Your task to perform on an android device: Do I have any events this weekend? Image 0: 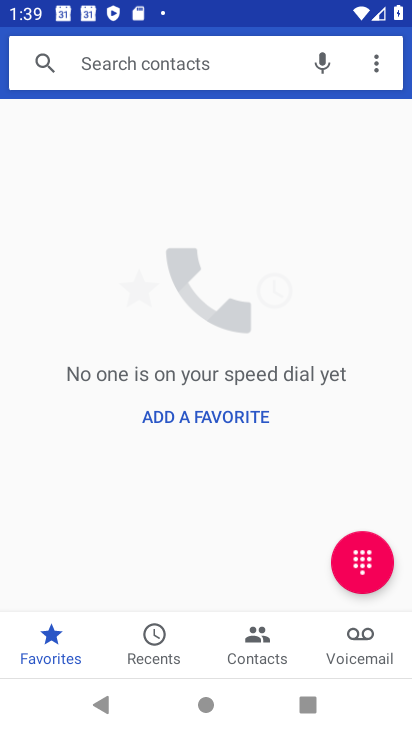
Step 0: press home button
Your task to perform on an android device: Do I have any events this weekend? Image 1: 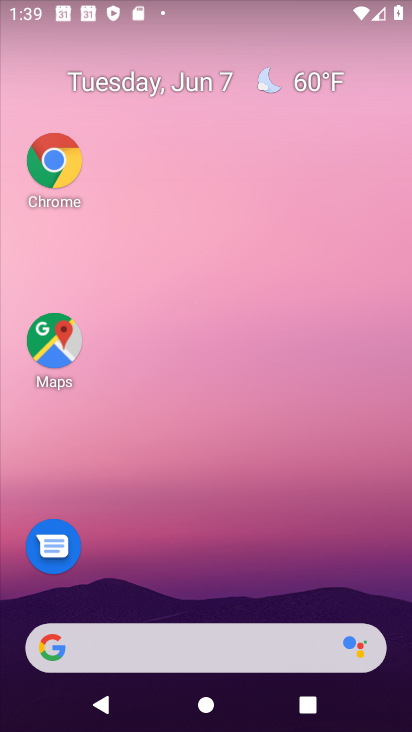
Step 1: drag from (186, 543) to (190, 153)
Your task to perform on an android device: Do I have any events this weekend? Image 2: 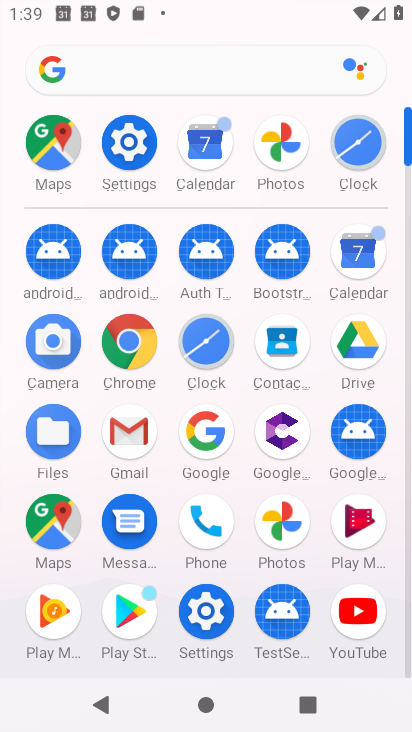
Step 2: click (350, 253)
Your task to perform on an android device: Do I have any events this weekend? Image 3: 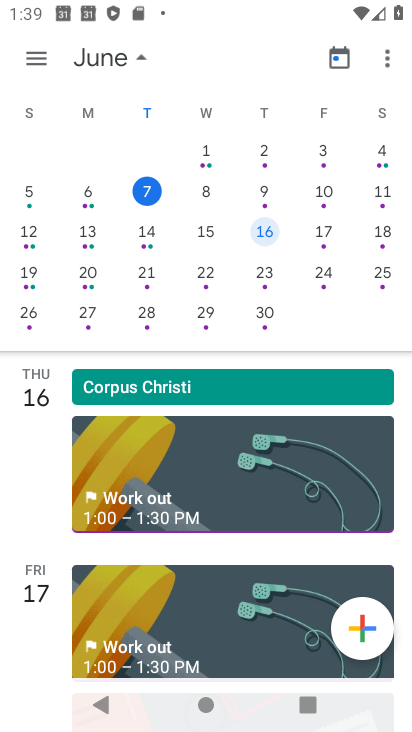
Step 3: click (377, 187)
Your task to perform on an android device: Do I have any events this weekend? Image 4: 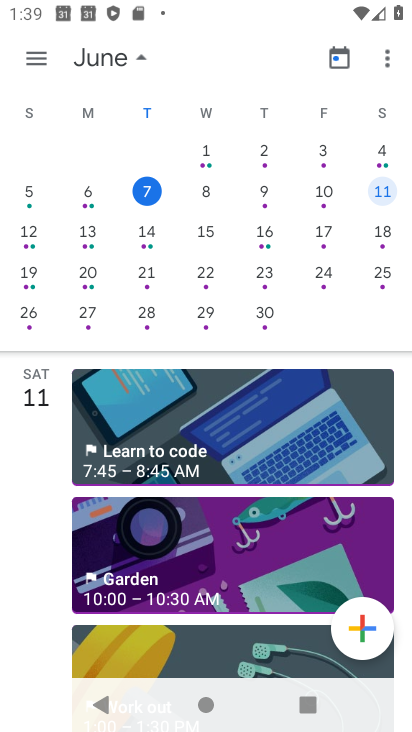
Step 4: task complete